Your task to perform on an android device: turn off data saver in the chrome app Image 0: 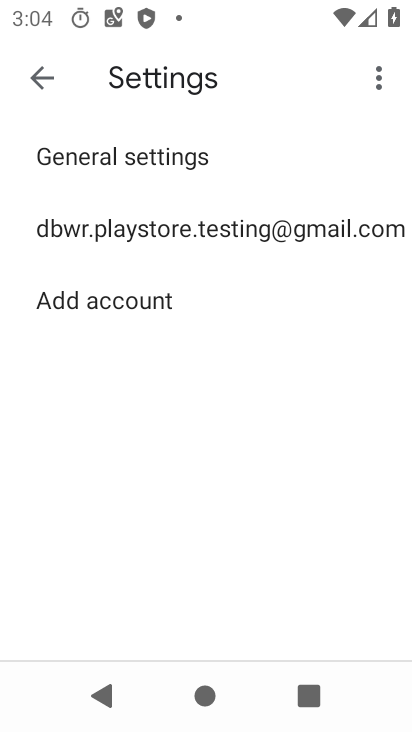
Step 0: press home button
Your task to perform on an android device: turn off data saver in the chrome app Image 1: 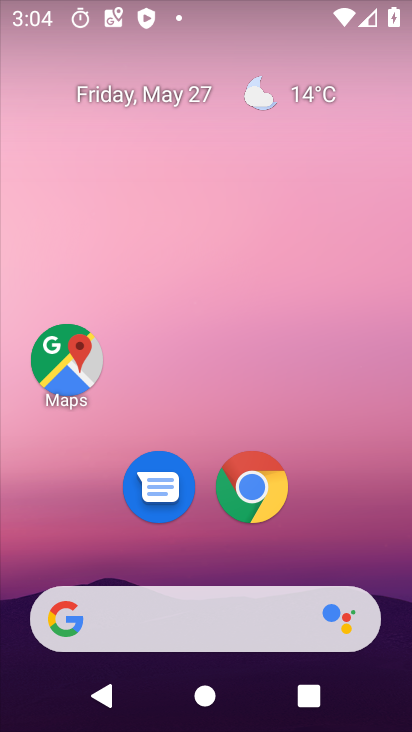
Step 1: click (255, 493)
Your task to perform on an android device: turn off data saver in the chrome app Image 2: 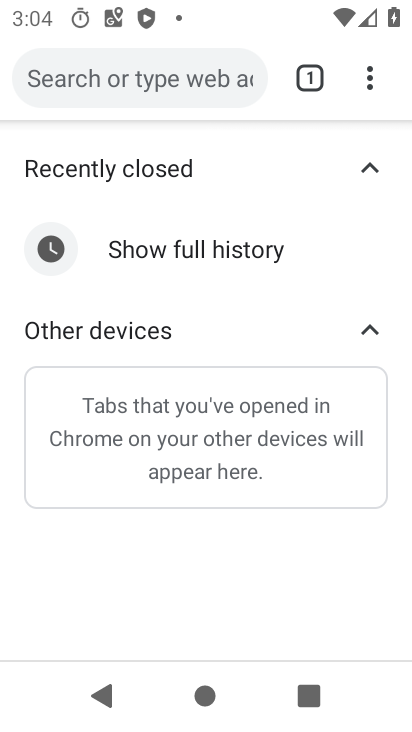
Step 2: drag from (382, 70) to (238, 527)
Your task to perform on an android device: turn off data saver in the chrome app Image 3: 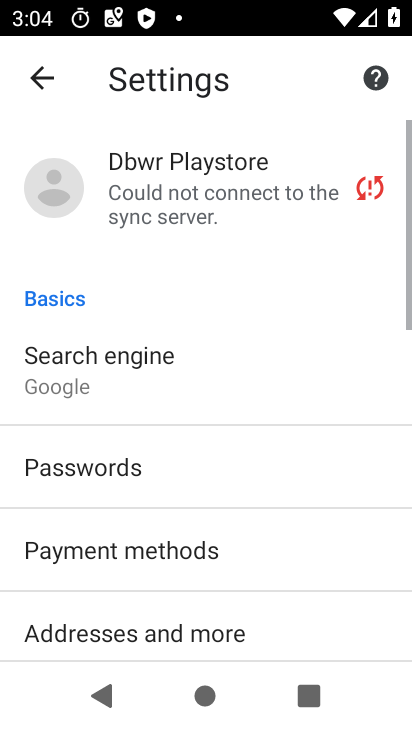
Step 3: drag from (185, 511) to (268, 54)
Your task to perform on an android device: turn off data saver in the chrome app Image 4: 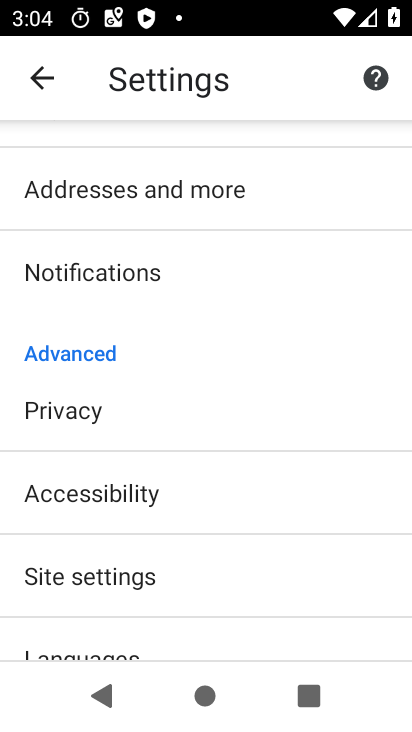
Step 4: drag from (274, 575) to (345, 240)
Your task to perform on an android device: turn off data saver in the chrome app Image 5: 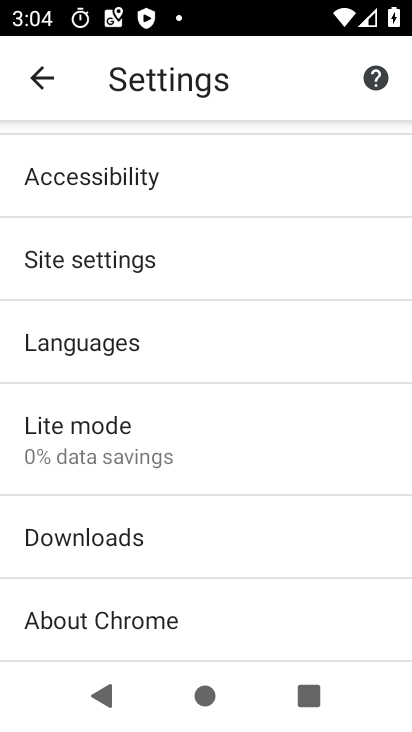
Step 5: click (155, 251)
Your task to perform on an android device: turn off data saver in the chrome app Image 6: 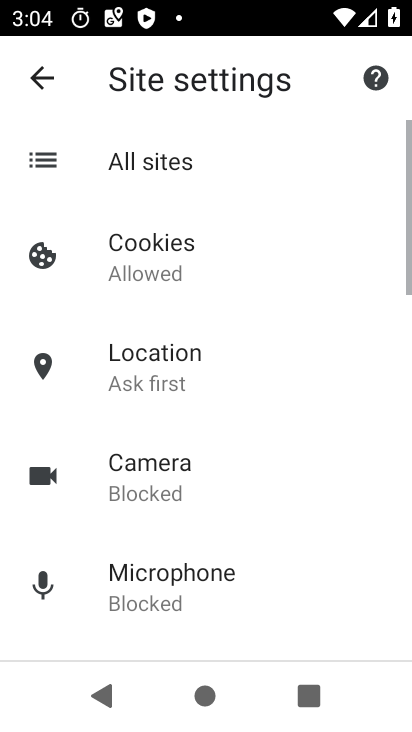
Step 6: drag from (267, 562) to (321, 182)
Your task to perform on an android device: turn off data saver in the chrome app Image 7: 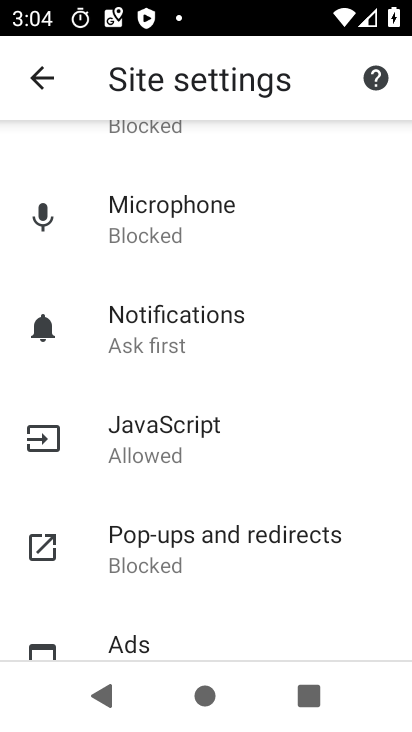
Step 7: click (244, 445)
Your task to perform on an android device: turn off data saver in the chrome app Image 8: 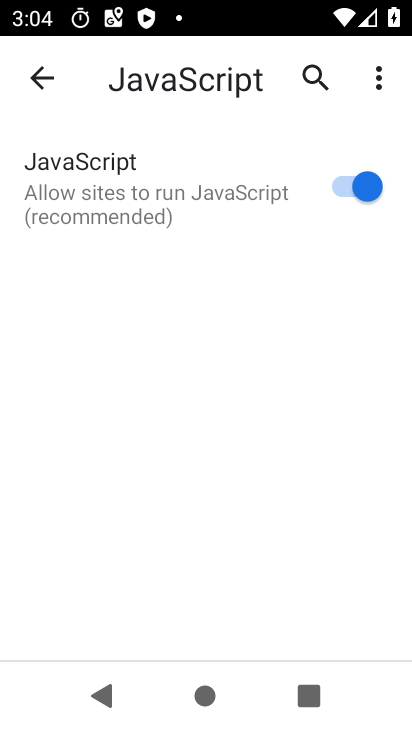
Step 8: click (352, 191)
Your task to perform on an android device: turn off data saver in the chrome app Image 9: 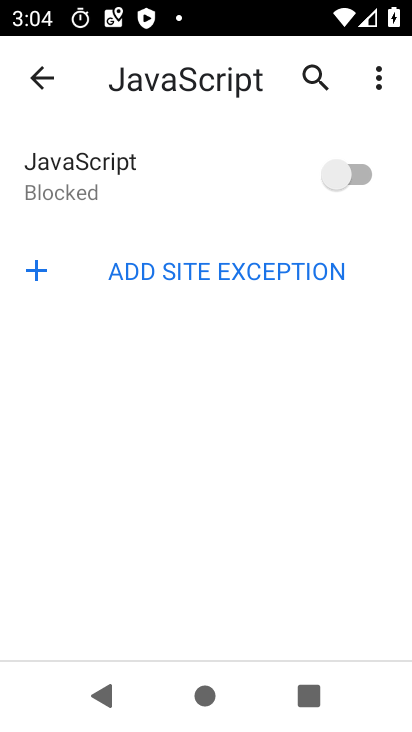
Step 9: task complete